Your task to perform on an android device: Open Maps and search for coffee Image 0: 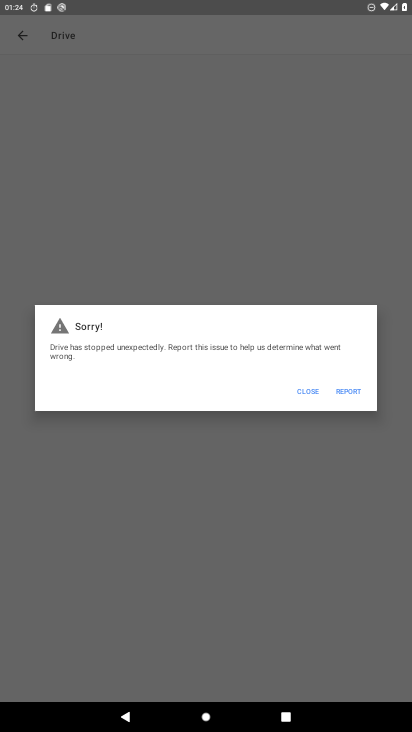
Step 0: press home button
Your task to perform on an android device: Open Maps and search for coffee Image 1: 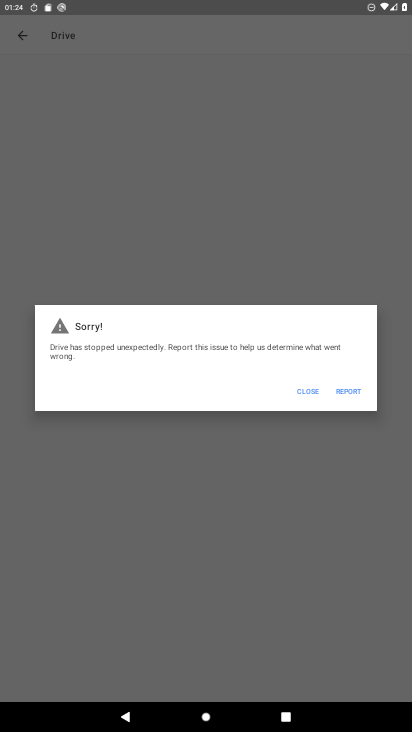
Step 1: press home button
Your task to perform on an android device: Open Maps and search for coffee Image 2: 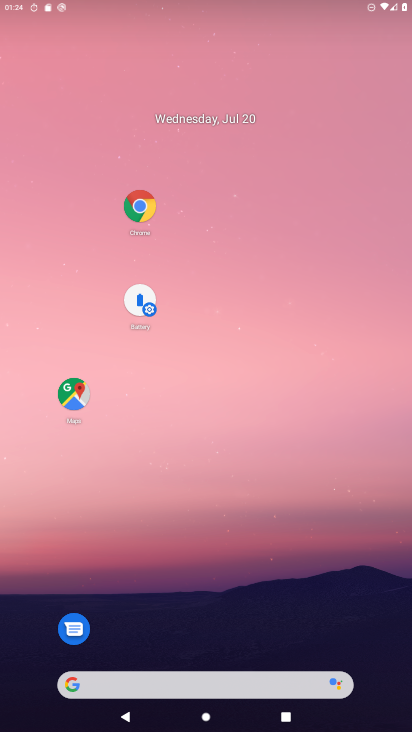
Step 2: drag from (205, 560) to (258, 203)
Your task to perform on an android device: Open Maps and search for coffee Image 3: 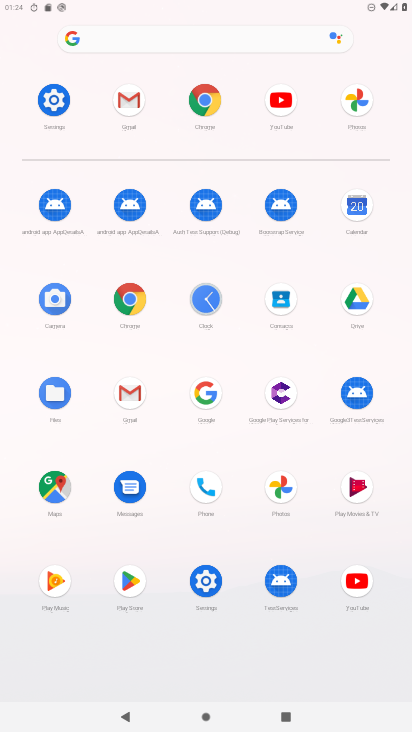
Step 3: click (74, 472)
Your task to perform on an android device: Open Maps and search for coffee Image 4: 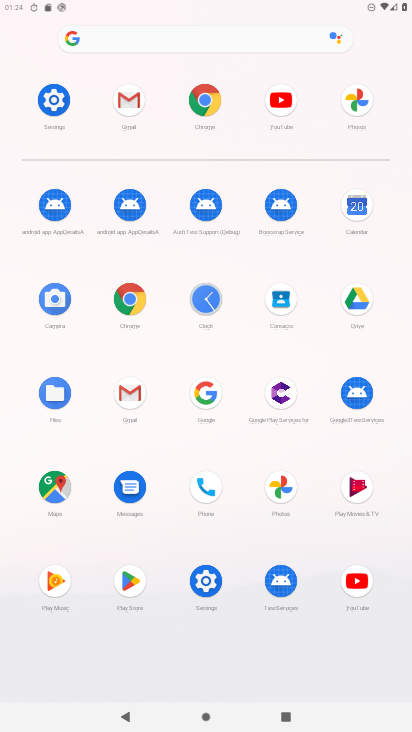
Step 4: click (65, 479)
Your task to perform on an android device: Open Maps and search for coffee Image 5: 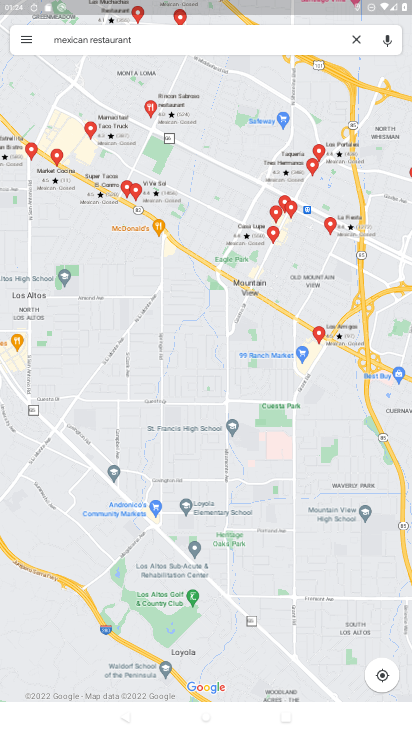
Step 5: click (129, 41)
Your task to perform on an android device: Open Maps and search for coffee Image 6: 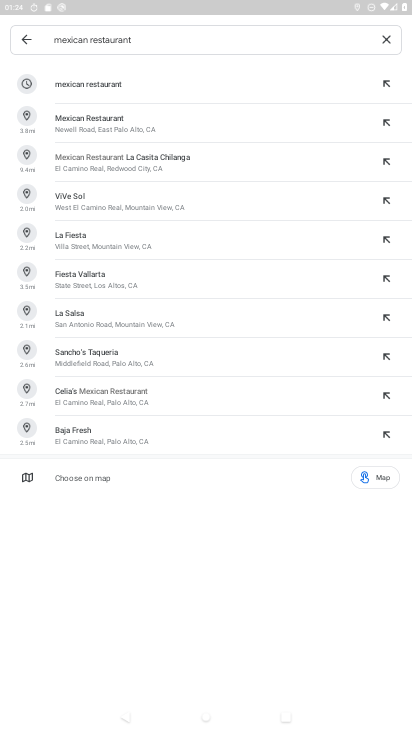
Step 6: click (351, 38)
Your task to perform on an android device: Open Maps and search for coffee Image 7: 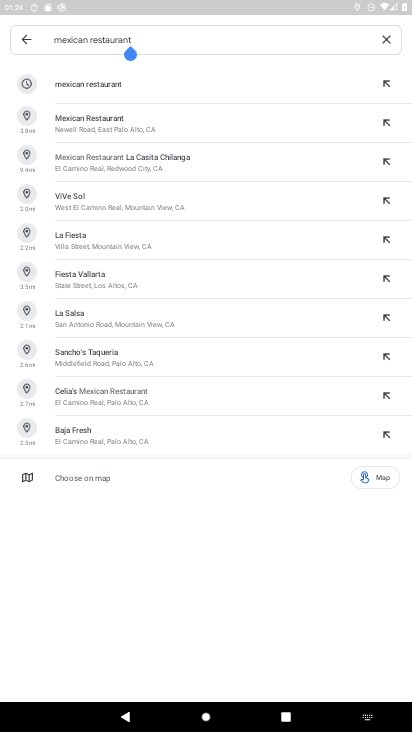
Step 7: click (383, 39)
Your task to perform on an android device: Open Maps and search for coffee Image 8: 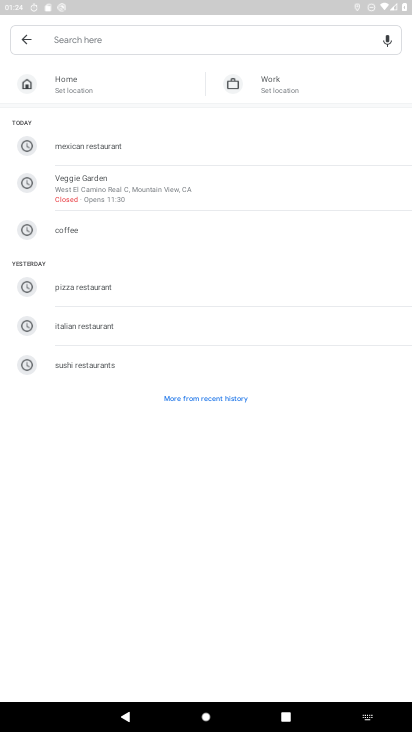
Step 8: click (78, 227)
Your task to perform on an android device: Open Maps and search for coffee Image 9: 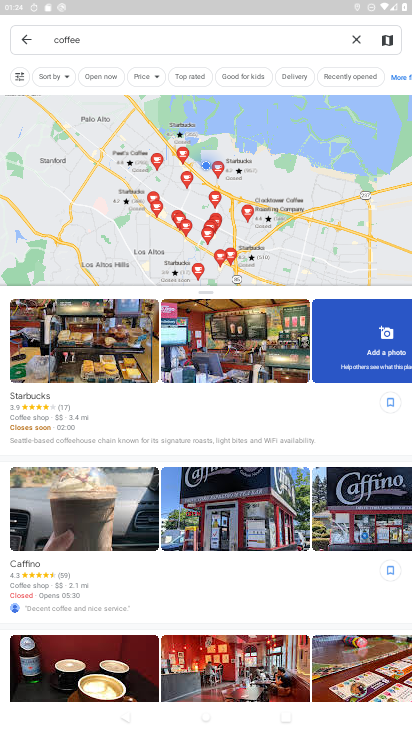
Step 9: task complete